Your task to perform on an android device: Go to calendar. Show me events next week Image 0: 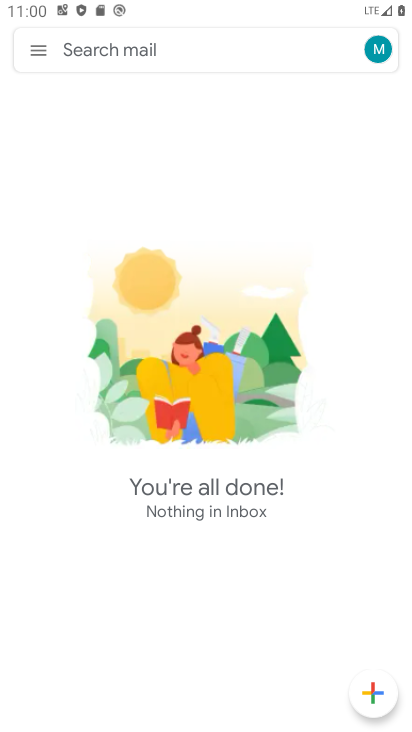
Step 0: press home button
Your task to perform on an android device: Go to calendar. Show me events next week Image 1: 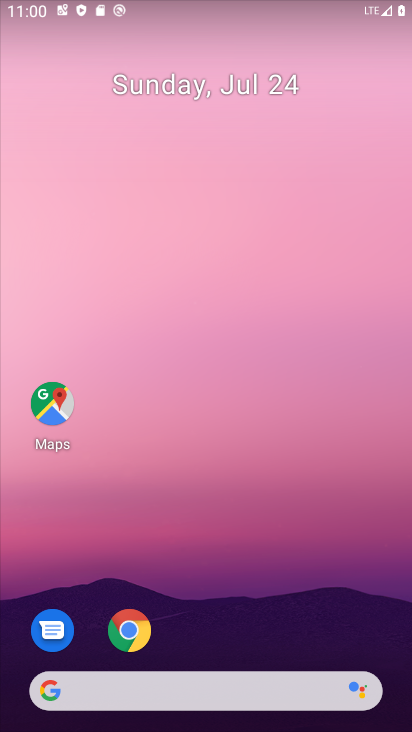
Step 1: drag from (177, 619) to (168, 115)
Your task to perform on an android device: Go to calendar. Show me events next week Image 2: 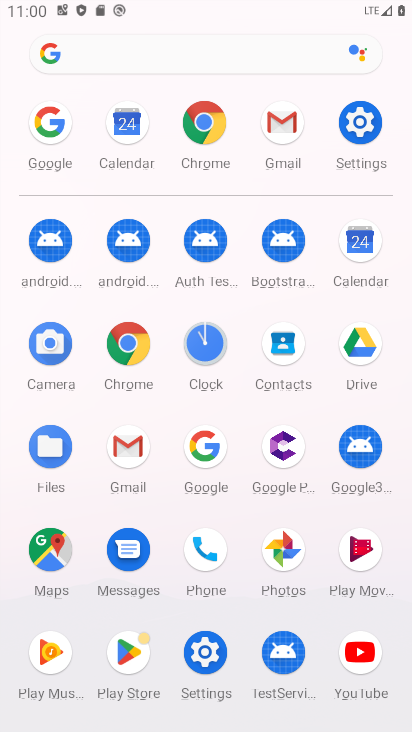
Step 2: click (346, 254)
Your task to perform on an android device: Go to calendar. Show me events next week Image 3: 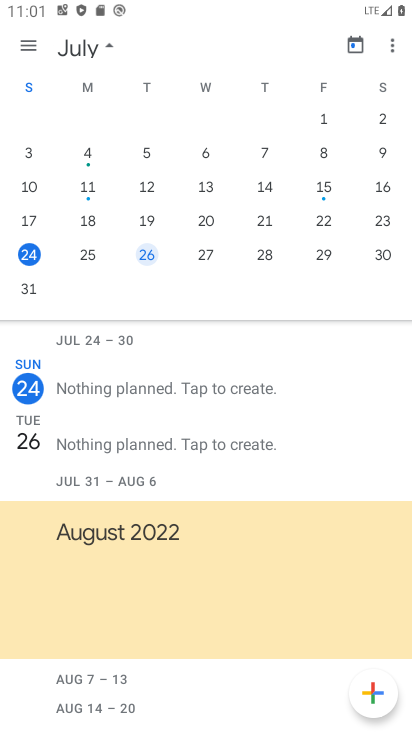
Step 3: click (31, 283)
Your task to perform on an android device: Go to calendar. Show me events next week Image 4: 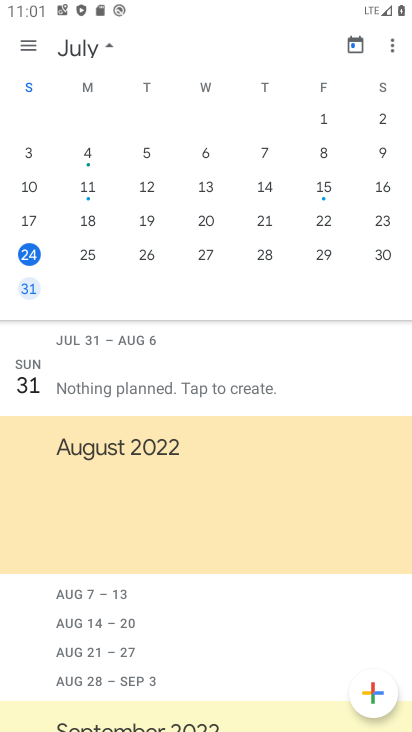
Step 4: task complete